Your task to perform on an android device: Open settings Image 0: 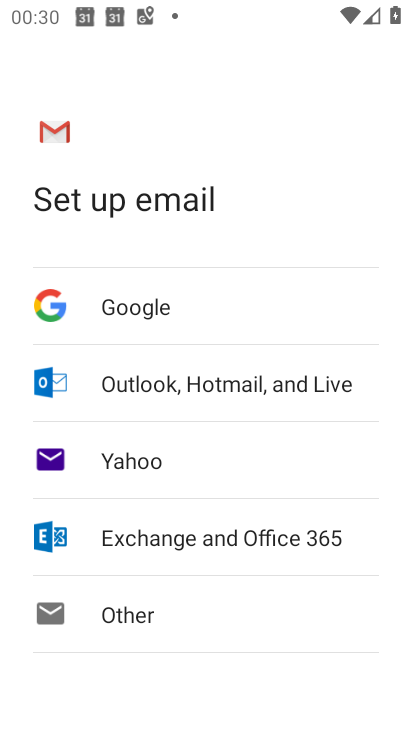
Step 0: press home button
Your task to perform on an android device: Open settings Image 1: 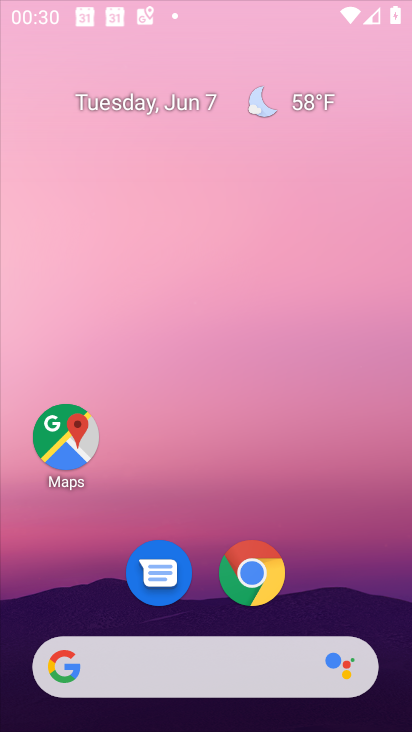
Step 1: drag from (345, 631) to (210, 127)
Your task to perform on an android device: Open settings Image 2: 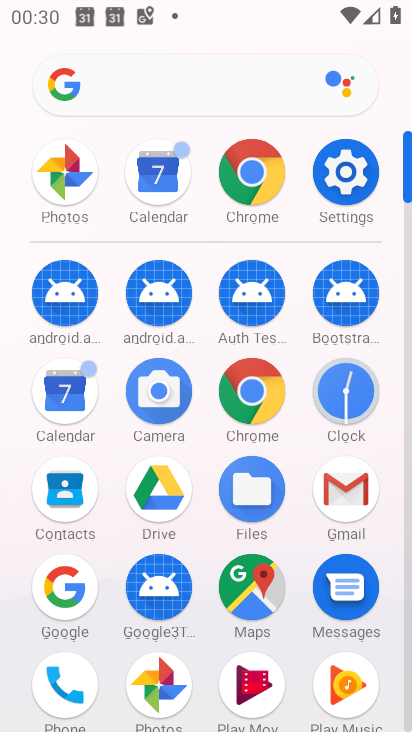
Step 2: click (324, 189)
Your task to perform on an android device: Open settings Image 3: 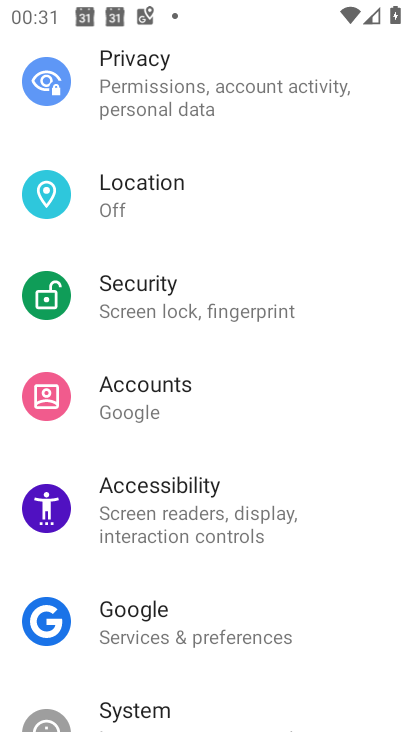
Step 3: task complete